Your task to perform on an android device: Go to Reddit.com Image 0: 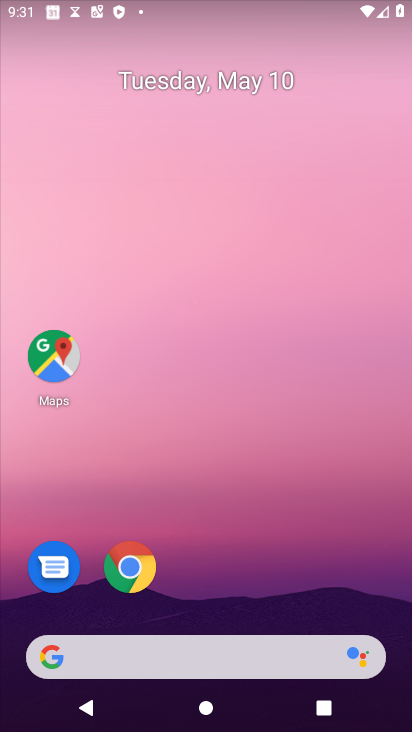
Step 0: press home button
Your task to perform on an android device: Go to Reddit.com Image 1: 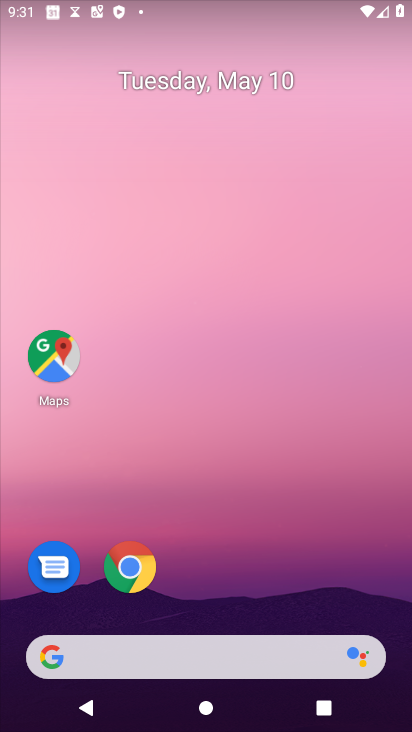
Step 1: click (111, 564)
Your task to perform on an android device: Go to Reddit.com Image 2: 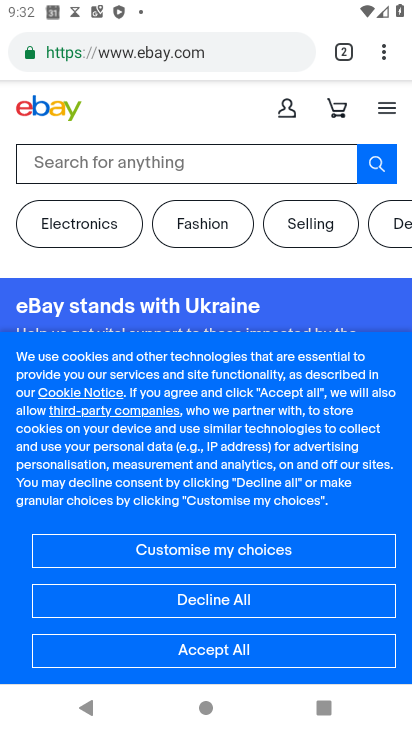
Step 2: click (214, 49)
Your task to perform on an android device: Go to Reddit.com Image 3: 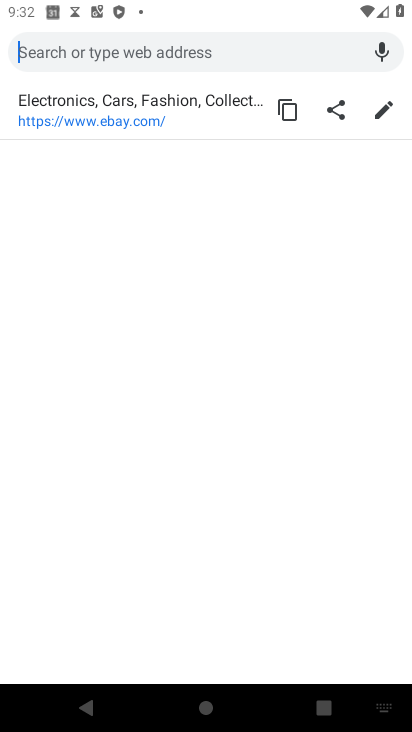
Step 3: click (203, 43)
Your task to perform on an android device: Go to Reddit.com Image 4: 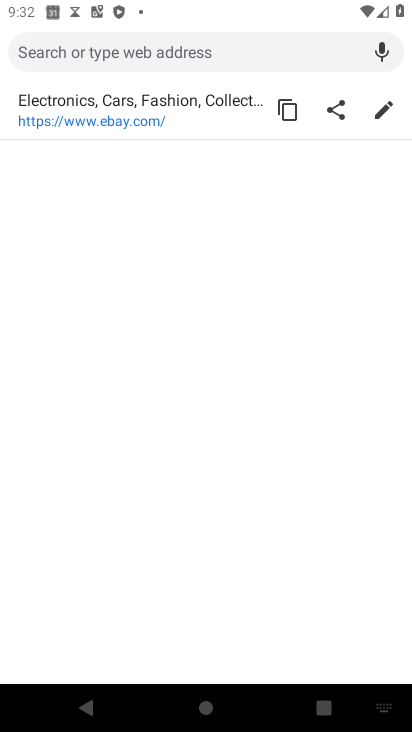
Step 4: type "Reddit.com"
Your task to perform on an android device: Go to Reddit.com Image 5: 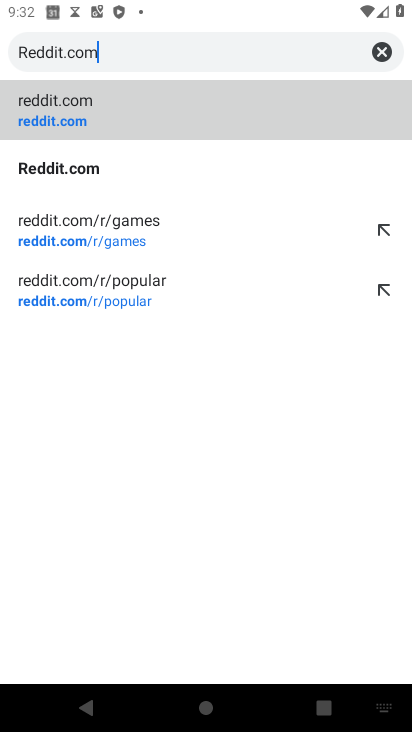
Step 5: type ""
Your task to perform on an android device: Go to Reddit.com Image 6: 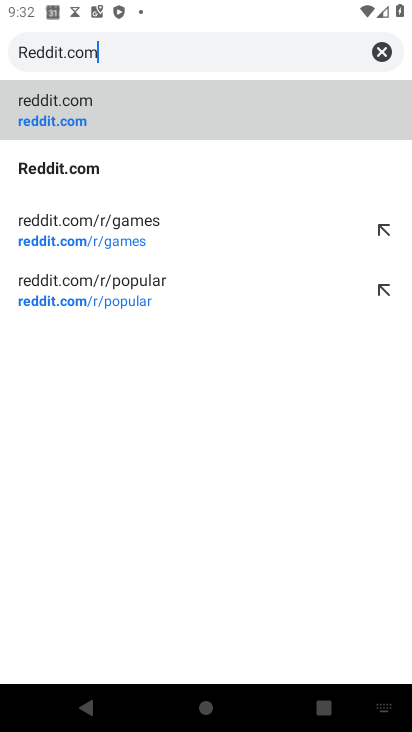
Step 6: click (60, 169)
Your task to perform on an android device: Go to Reddit.com Image 7: 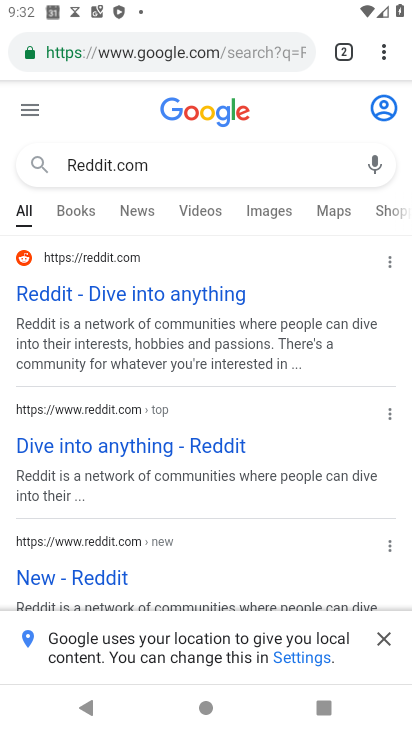
Step 7: task complete